Your task to perform on an android device: delete location history Image 0: 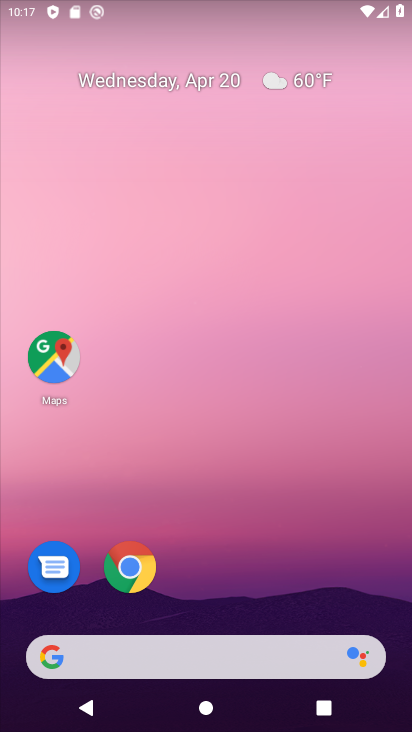
Step 0: drag from (312, 586) to (206, 4)
Your task to perform on an android device: delete location history Image 1: 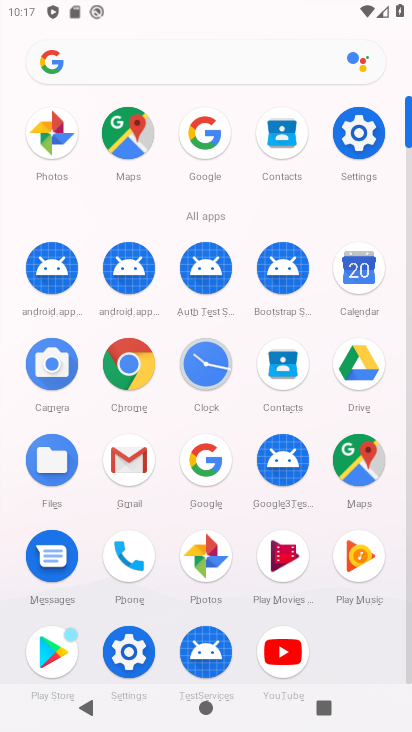
Step 1: click (359, 152)
Your task to perform on an android device: delete location history Image 2: 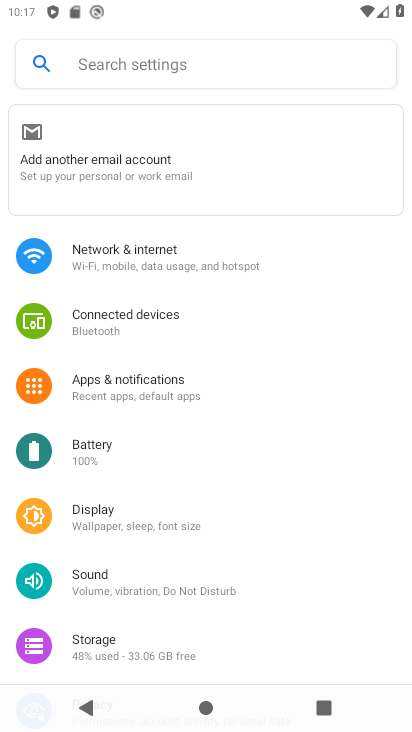
Step 2: drag from (196, 558) to (147, 190)
Your task to perform on an android device: delete location history Image 3: 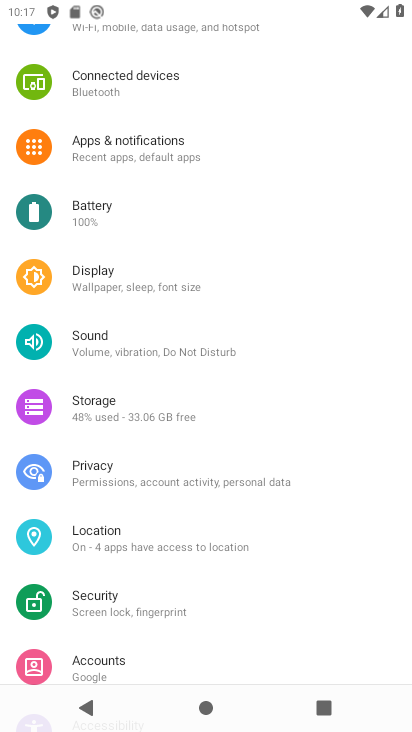
Step 3: click (96, 542)
Your task to perform on an android device: delete location history Image 4: 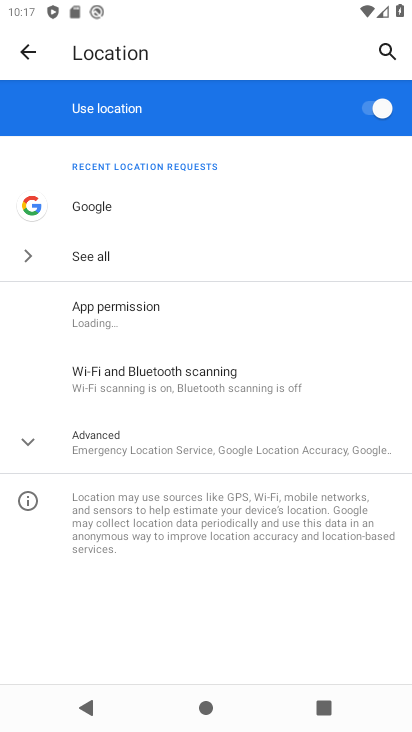
Step 4: click (134, 457)
Your task to perform on an android device: delete location history Image 5: 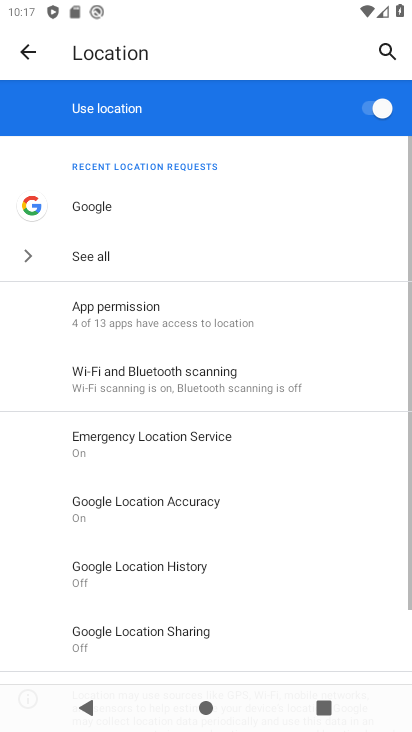
Step 5: drag from (151, 593) to (124, 469)
Your task to perform on an android device: delete location history Image 6: 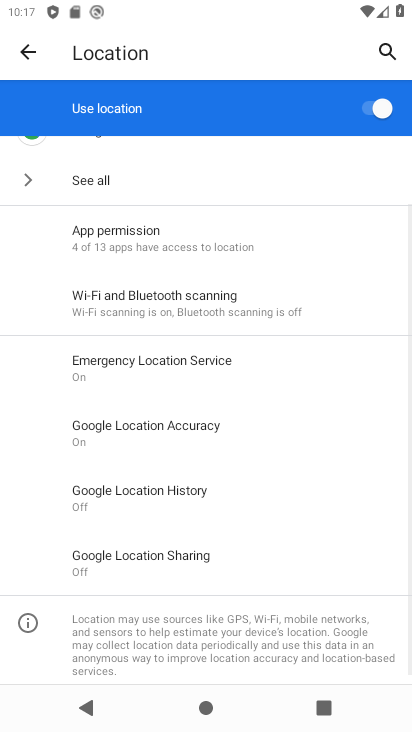
Step 6: click (132, 491)
Your task to perform on an android device: delete location history Image 7: 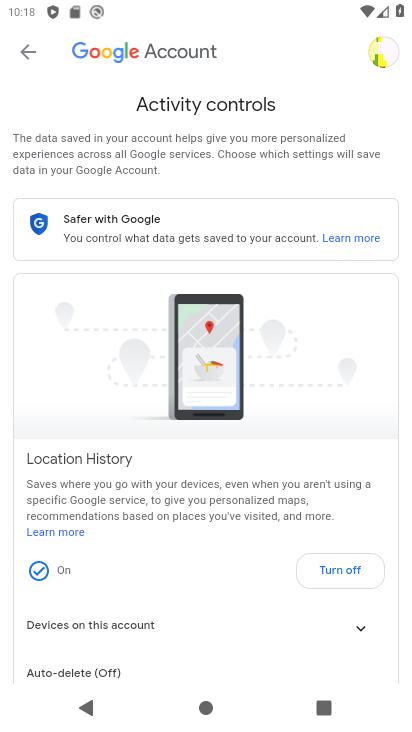
Step 7: drag from (272, 608) to (234, 446)
Your task to perform on an android device: delete location history Image 8: 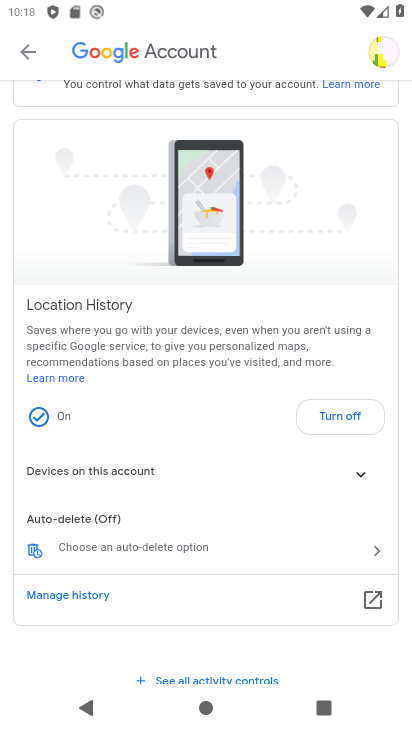
Step 8: click (95, 591)
Your task to perform on an android device: delete location history Image 9: 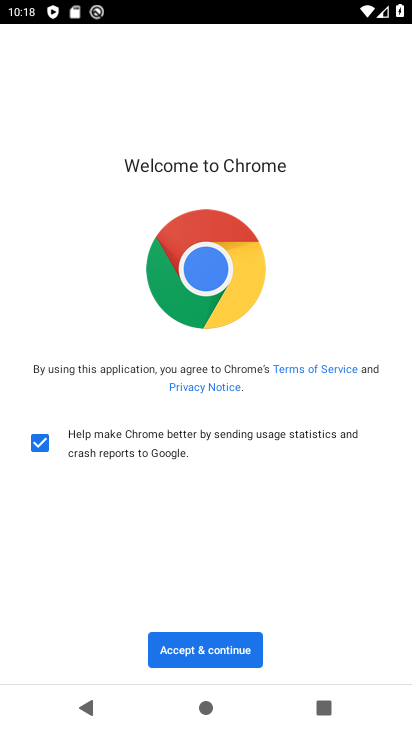
Step 9: click (224, 653)
Your task to perform on an android device: delete location history Image 10: 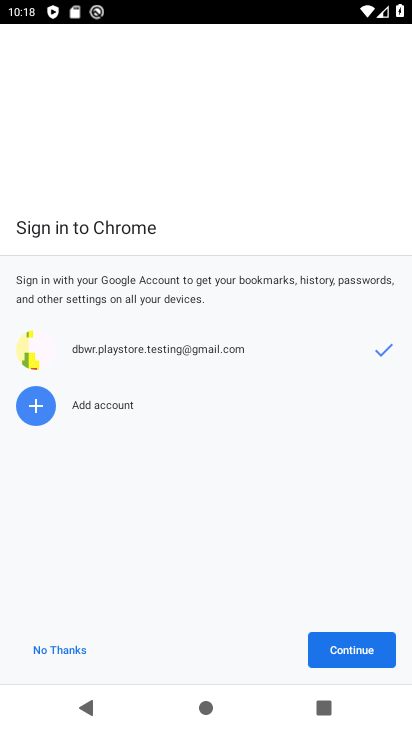
Step 10: click (344, 658)
Your task to perform on an android device: delete location history Image 11: 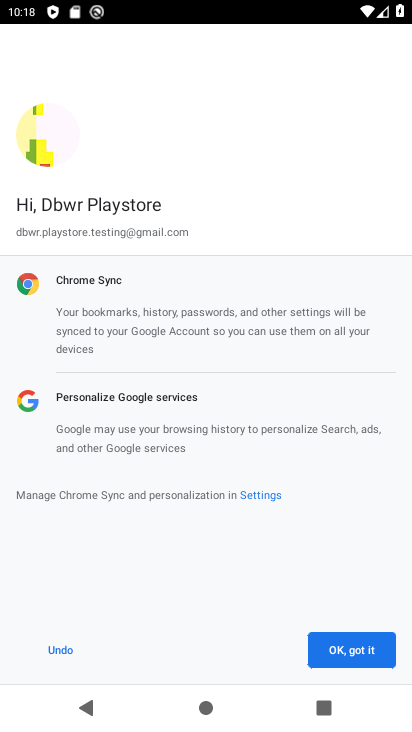
Step 11: click (331, 650)
Your task to perform on an android device: delete location history Image 12: 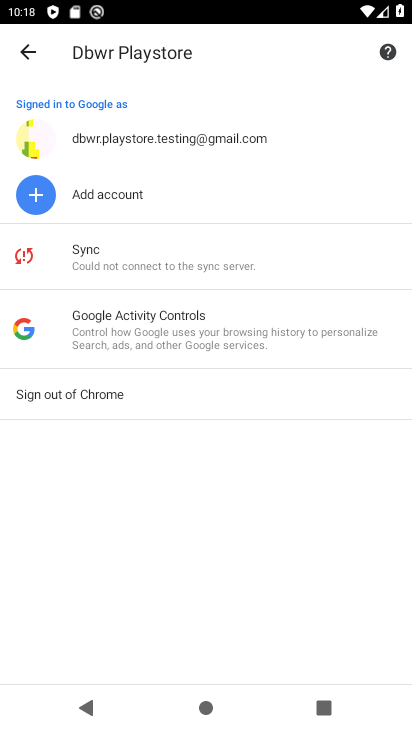
Step 12: click (103, 711)
Your task to perform on an android device: delete location history Image 13: 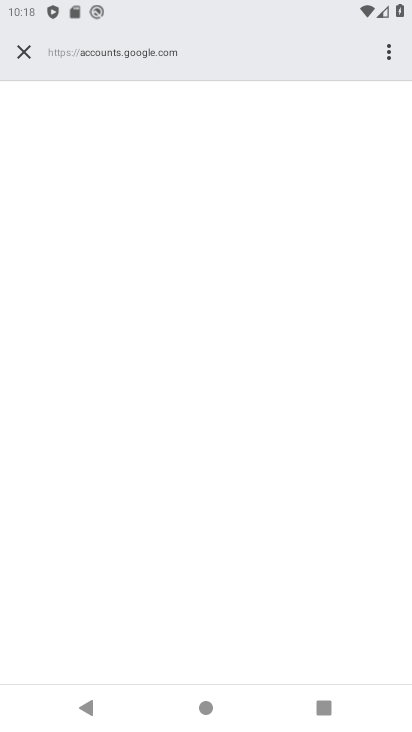
Step 13: click (18, 37)
Your task to perform on an android device: delete location history Image 14: 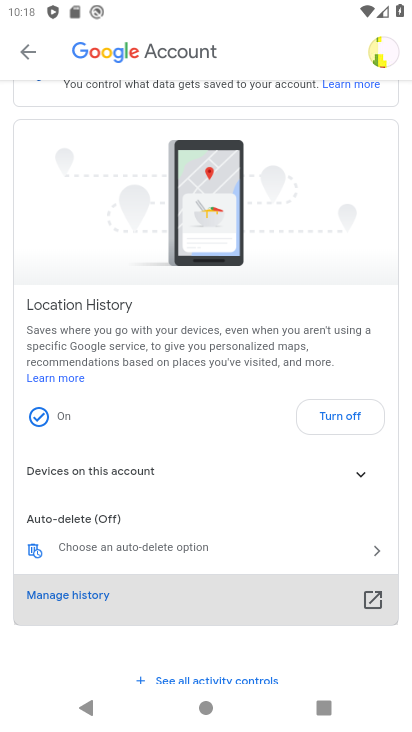
Step 14: click (133, 590)
Your task to perform on an android device: delete location history Image 15: 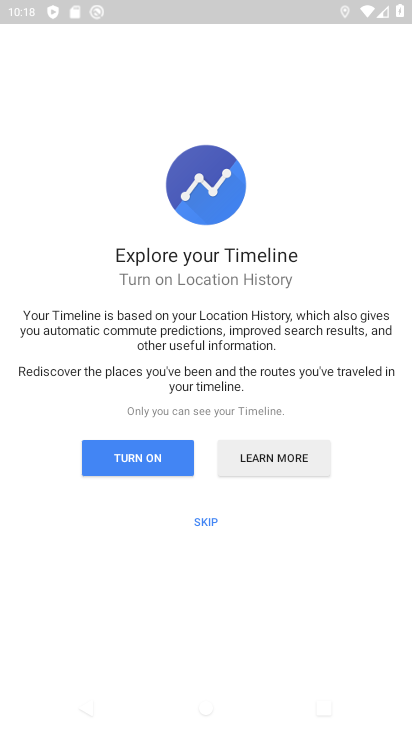
Step 15: click (204, 519)
Your task to perform on an android device: delete location history Image 16: 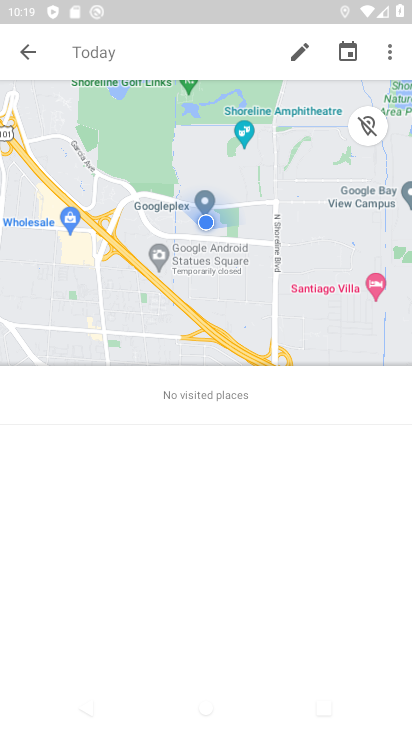
Step 16: click (388, 47)
Your task to perform on an android device: delete location history Image 17: 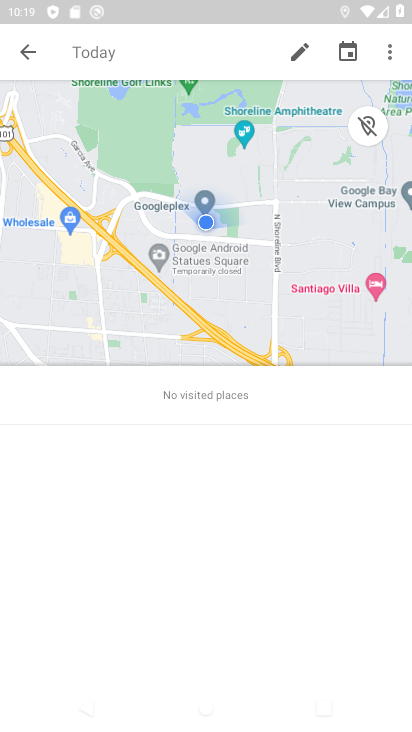
Step 17: click (394, 50)
Your task to perform on an android device: delete location history Image 18: 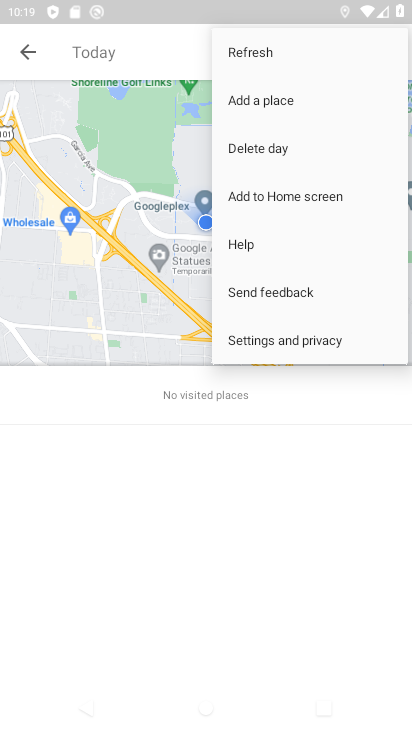
Step 18: click (272, 141)
Your task to perform on an android device: delete location history Image 19: 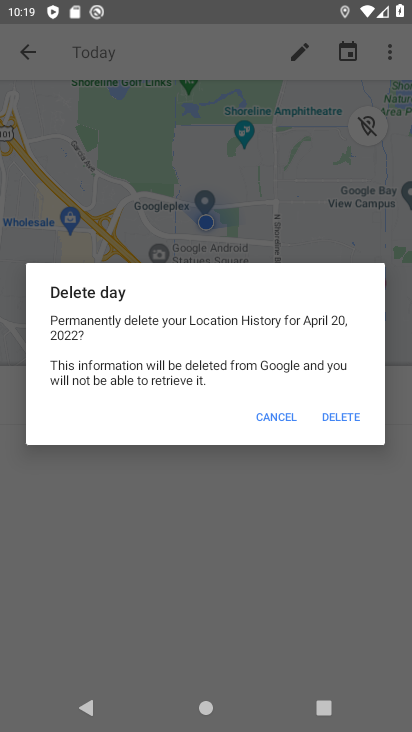
Step 19: click (356, 419)
Your task to perform on an android device: delete location history Image 20: 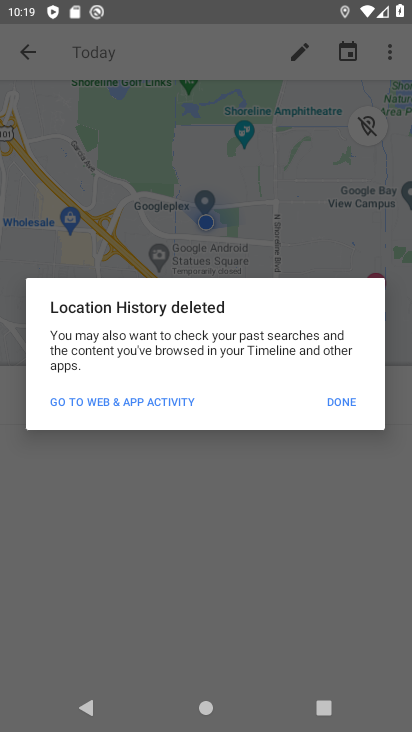
Step 20: click (352, 403)
Your task to perform on an android device: delete location history Image 21: 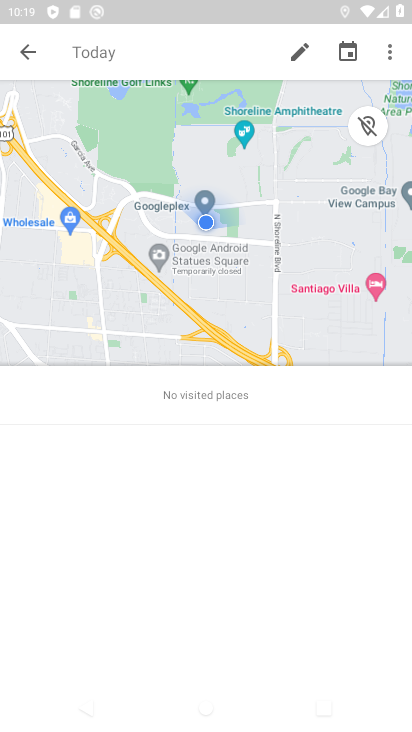
Step 21: task complete